Your task to perform on an android device: toggle data saver in the chrome app Image 0: 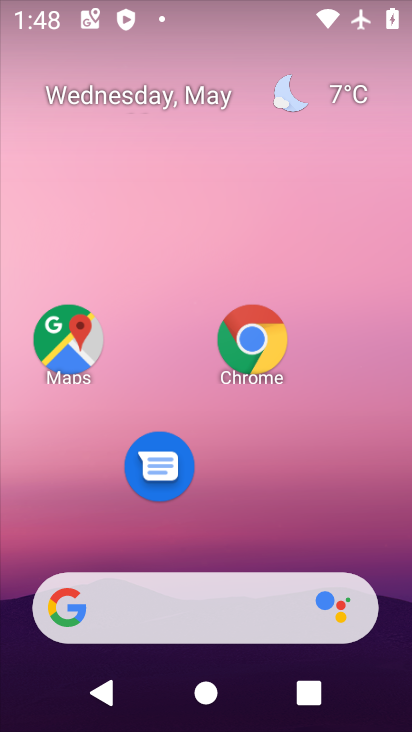
Step 0: click (263, 335)
Your task to perform on an android device: toggle data saver in the chrome app Image 1: 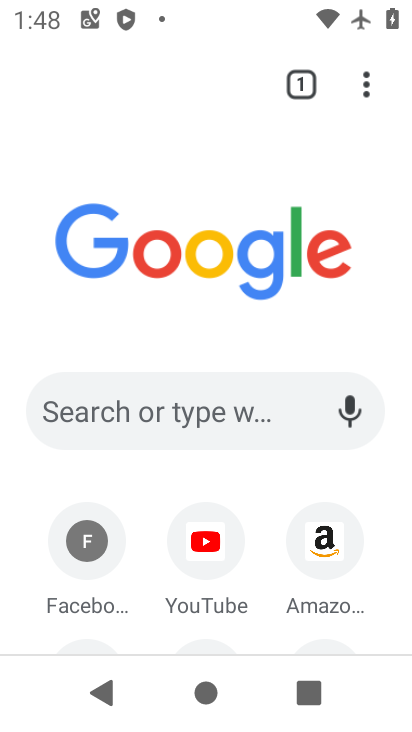
Step 1: drag from (364, 92) to (182, 517)
Your task to perform on an android device: toggle data saver in the chrome app Image 2: 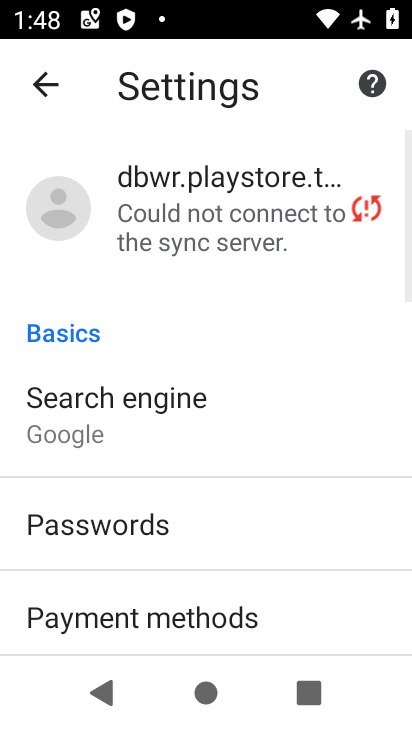
Step 2: drag from (152, 607) to (385, 52)
Your task to perform on an android device: toggle data saver in the chrome app Image 3: 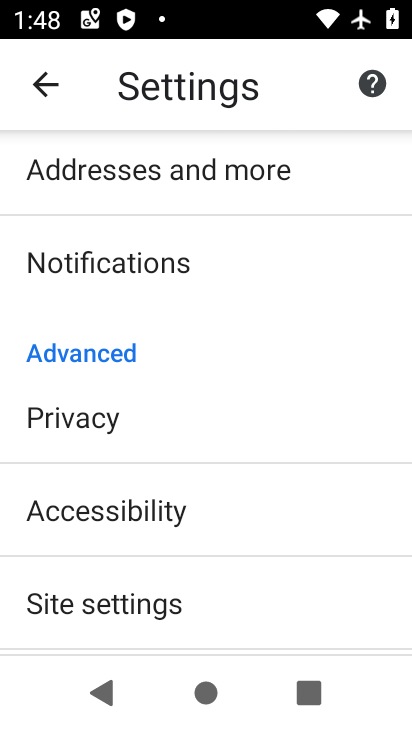
Step 3: drag from (242, 559) to (329, 272)
Your task to perform on an android device: toggle data saver in the chrome app Image 4: 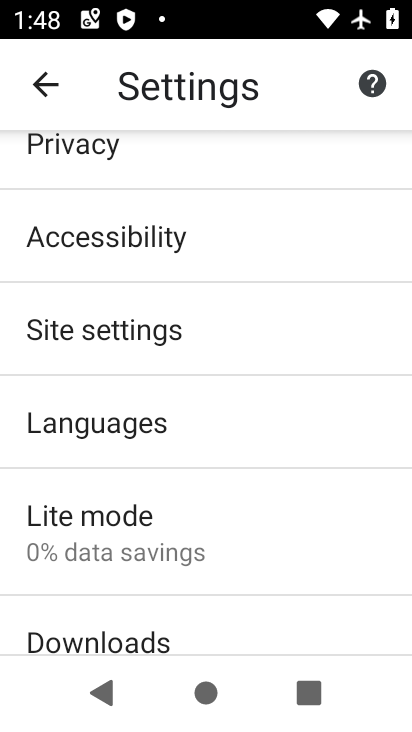
Step 4: click (137, 544)
Your task to perform on an android device: toggle data saver in the chrome app Image 5: 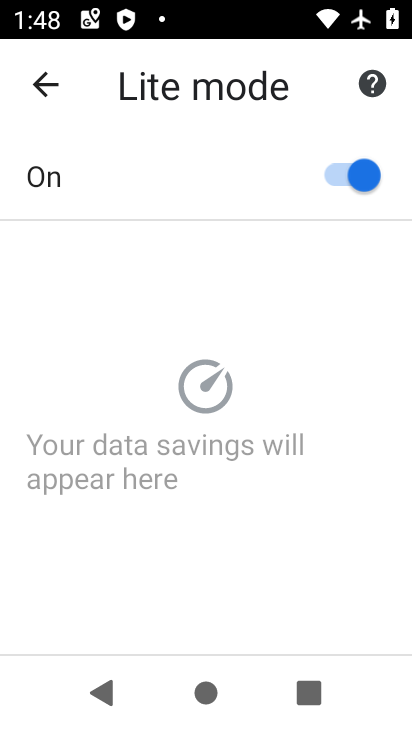
Step 5: click (337, 172)
Your task to perform on an android device: toggle data saver in the chrome app Image 6: 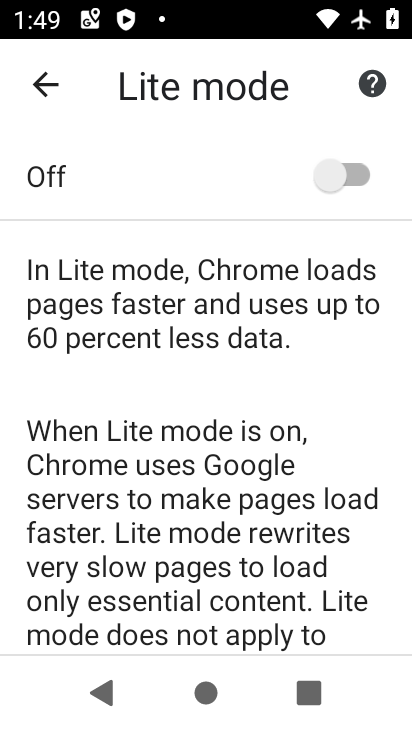
Step 6: task complete